Your task to perform on an android device: Go to Amazon Image 0: 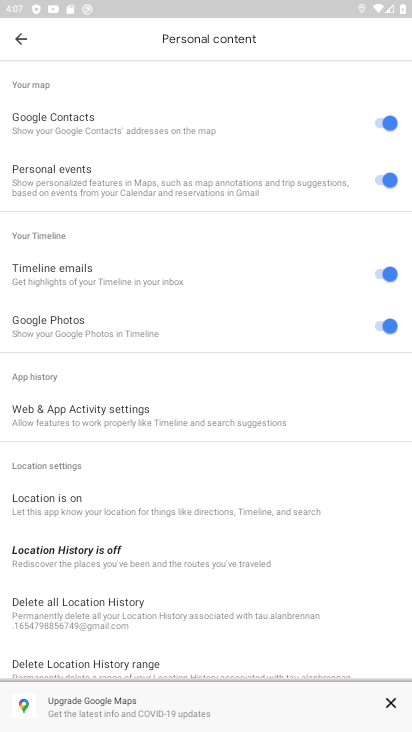
Step 0: press home button
Your task to perform on an android device: Go to Amazon Image 1: 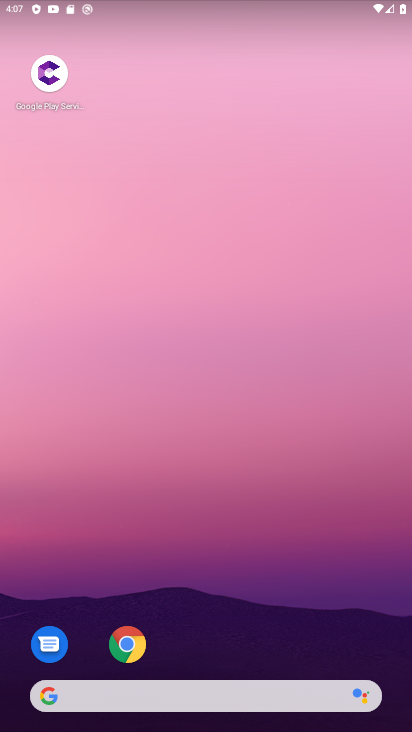
Step 1: drag from (185, 645) to (320, 74)
Your task to perform on an android device: Go to Amazon Image 2: 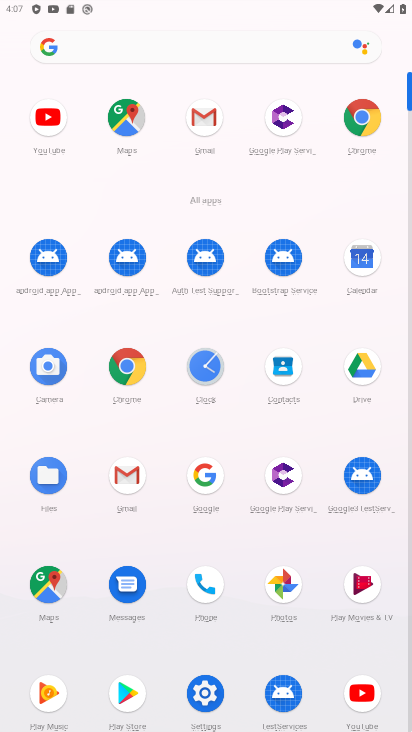
Step 2: click (341, 116)
Your task to perform on an android device: Go to Amazon Image 3: 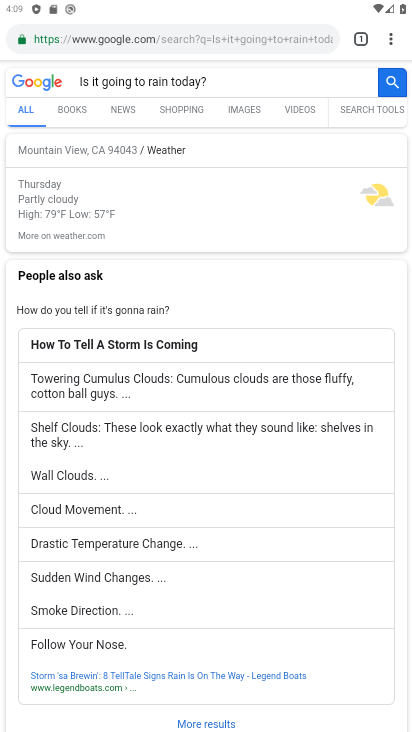
Step 3: click (222, 29)
Your task to perform on an android device: Go to Amazon Image 4: 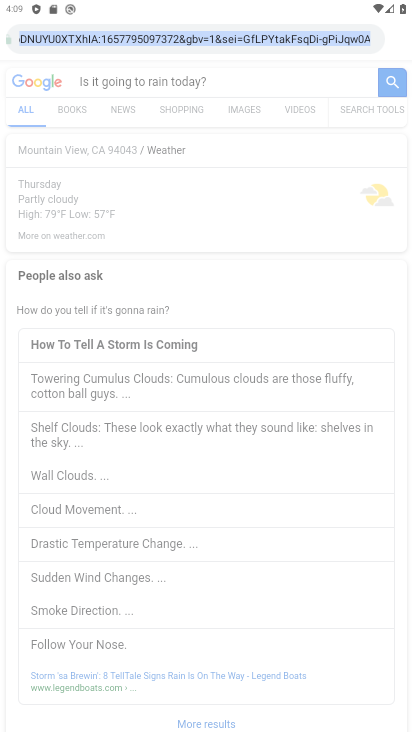
Step 4: click (224, 35)
Your task to perform on an android device: Go to Amazon Image 5: 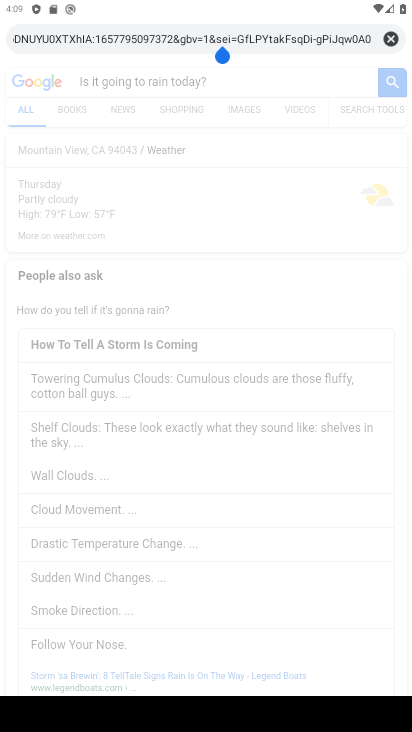
Step 5: click (388, 32)
Your task to perform on an android device: Go to Amazon Image 6: 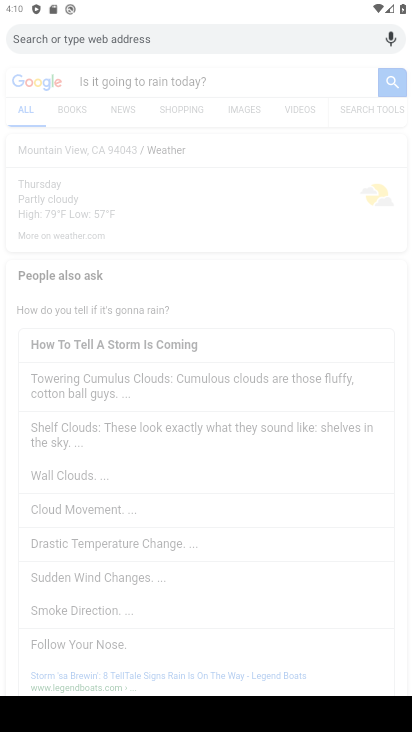
Step 6: type "amazon"
Your task to perform on an android device: Go to Amazon Image 7: 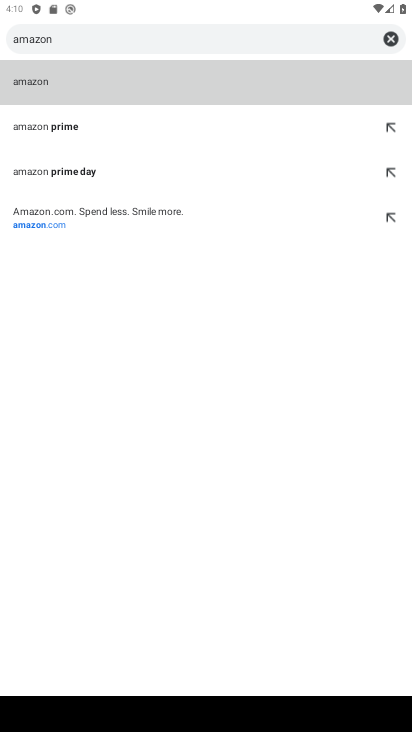
Step 7: click (64, 88)
Your task to perform on an android device: Go to Amazon Image 8: 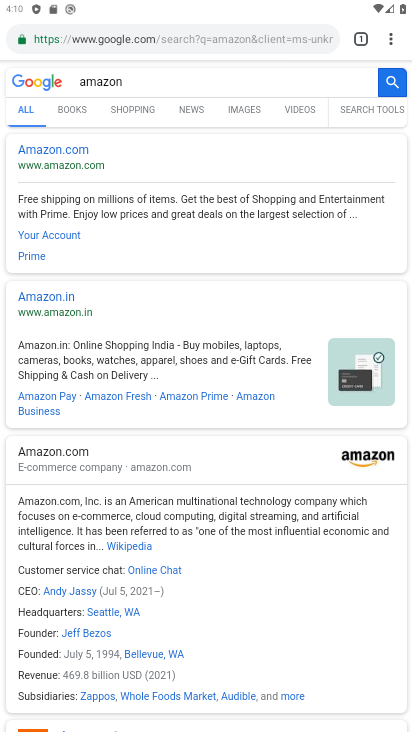
Step 8: click (47, 160)
Your task to perform on an android device: Go to Amazon Image 9: 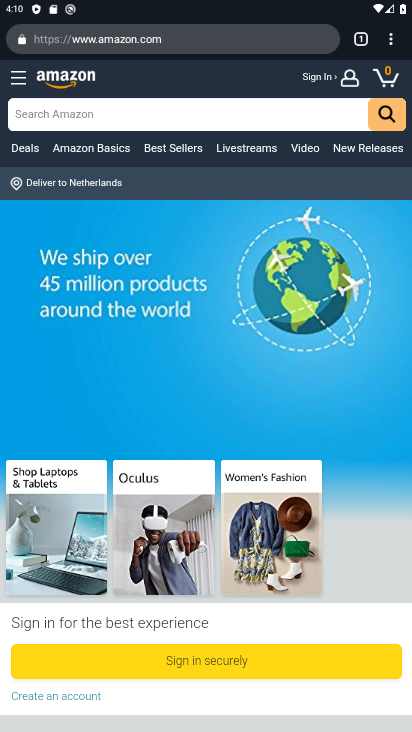
Step 9: task complete